Your task to perform on an android device: add a contact in the contacts app Image 0: 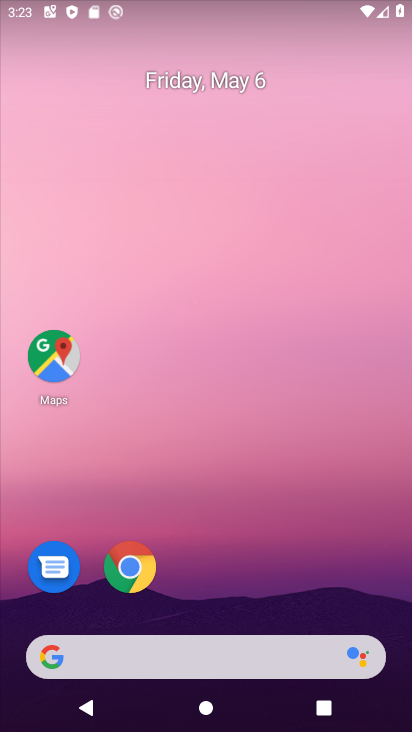
Step 0: drag from (163, 583) to (160, 280)
Your task to perform on an android device: add a contact in the contacts app Image 1: 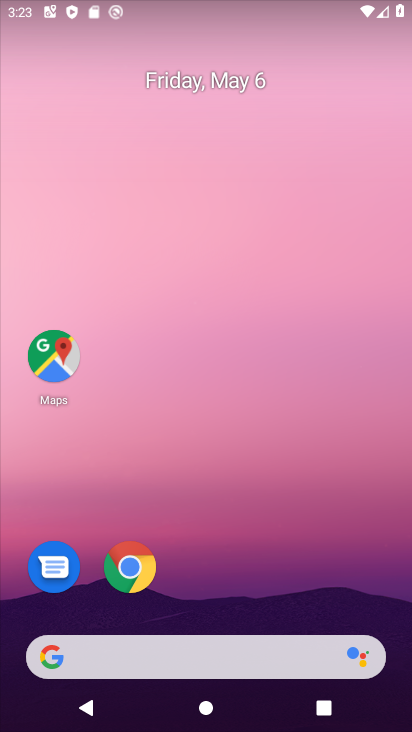
Step 1: drag from (221, 613) to (260, 218)
Your task to perform on an android device: add a contact in the contacts app Image 2: 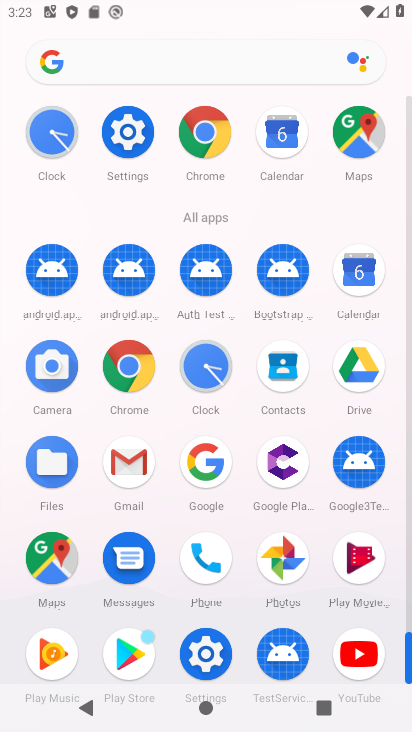
Step 2: click (274, 370)
Your task to perform on an android device: add a contact in the contacts app Image 3: 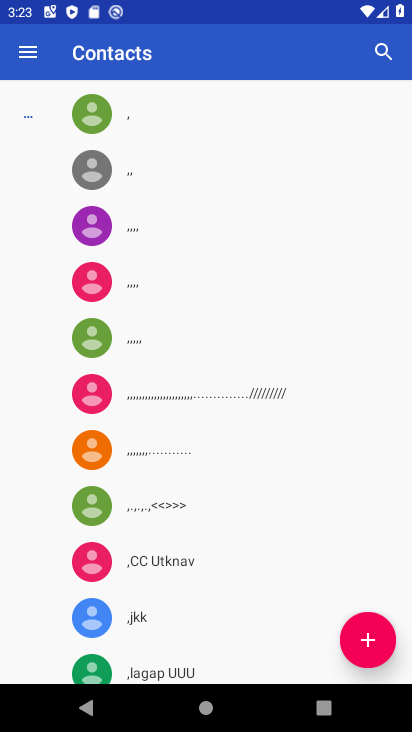
Step 3: click (359, 643)
Your task to perform on an android device: add a contact in the contacts app Image 4: 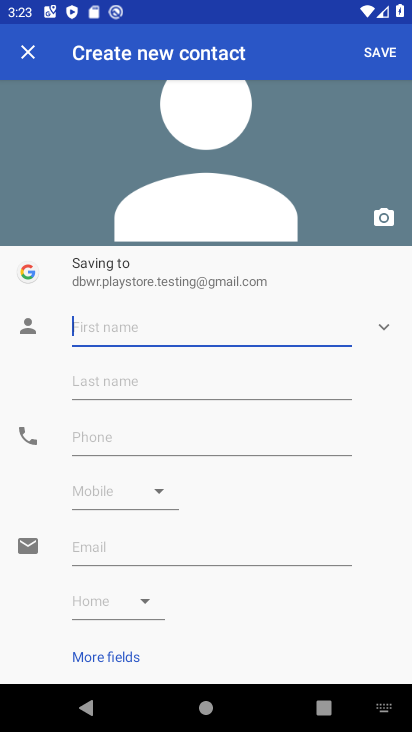
Step 4: type "gfbfn"
Your task to perform on an android device: add a contact in the contacts app Image 5: 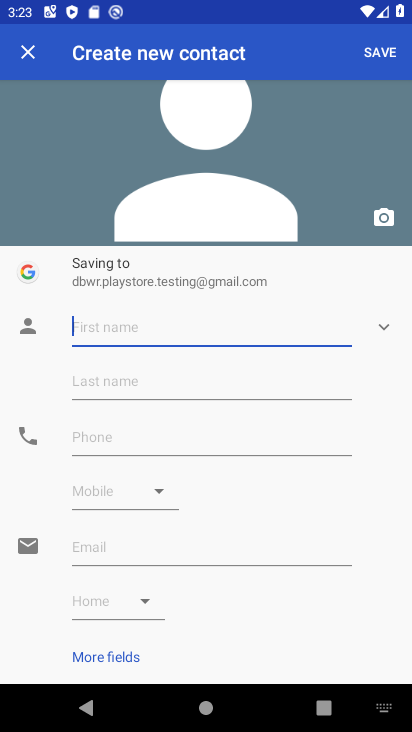
Step 5: click (158, 378)
Your task to perform on an android device: add a contact in the contacts app Image 6: 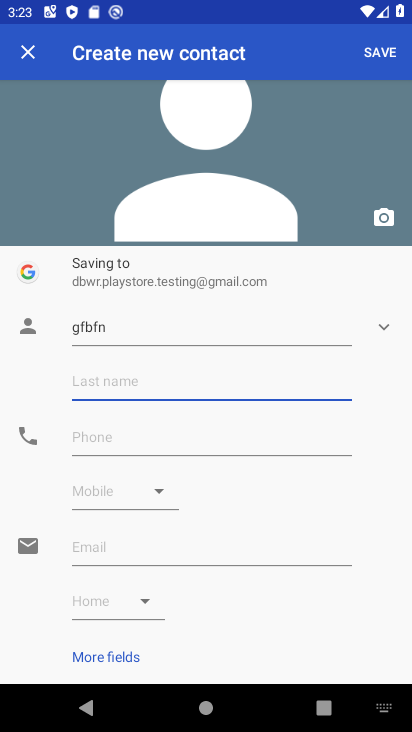
Step 6: type "gngf"
Your task to perform on an android device: add a contact in the contacts app Image 7: 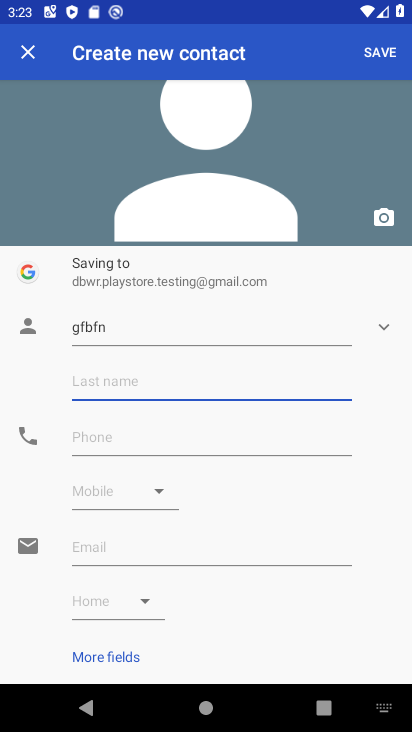
Step 7: click (113, 433)
Your task to perform on an android device: add a contact in the contacts app Image 8: 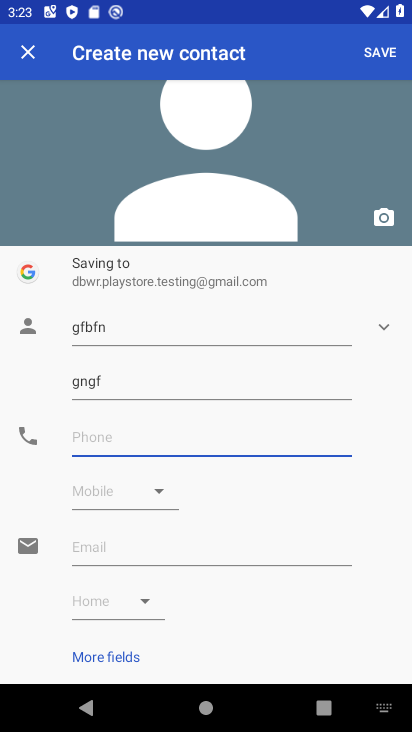
Step 8: type "4646"
Your task to perform on an android device: add a contact in the contacts app Image 9: 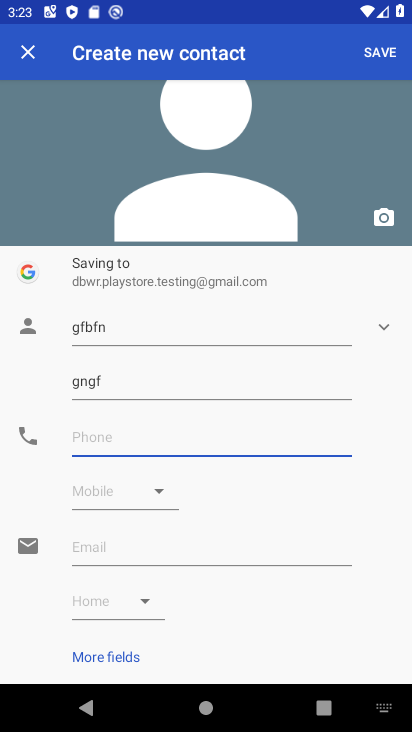
Step 9: click (97, 529)
Your task to perform on an android device: add a contact in the contacts app Image 10: 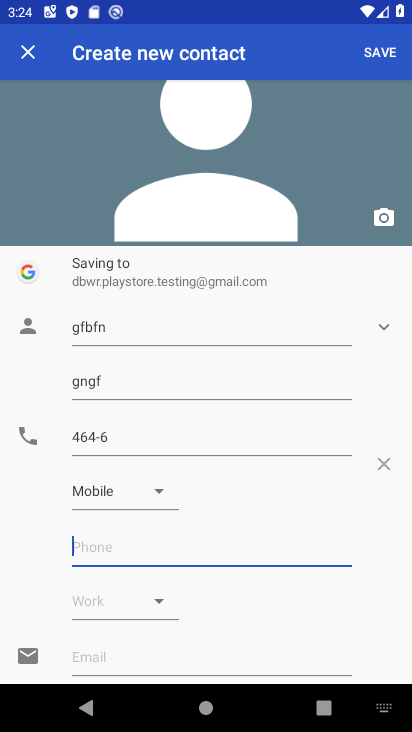
Step 10: click (374, 55)
Your task to perform on an android device: add a contact in the contacts app Image 11: 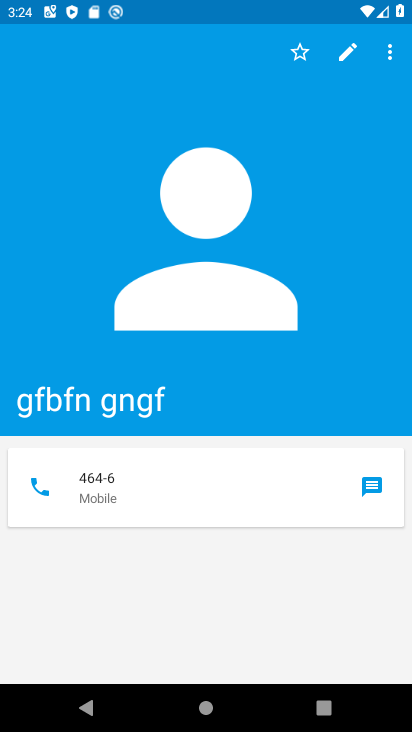
Step 11: task complete